Your task to perform on an android device: turn on location history Image 0: 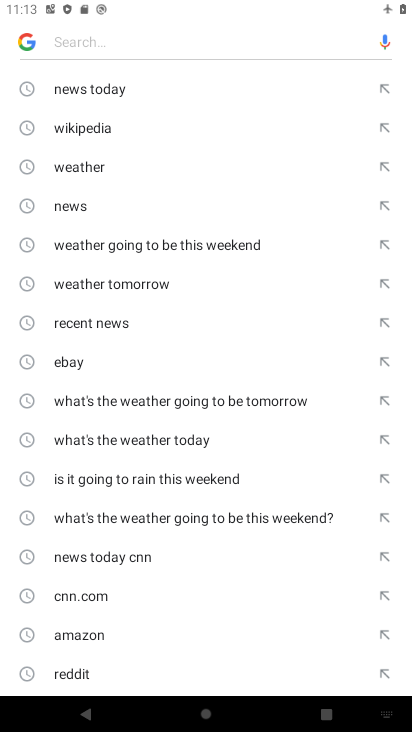
Step 0: press home button
Your task to perform on an android device: turn on location history Image 1: 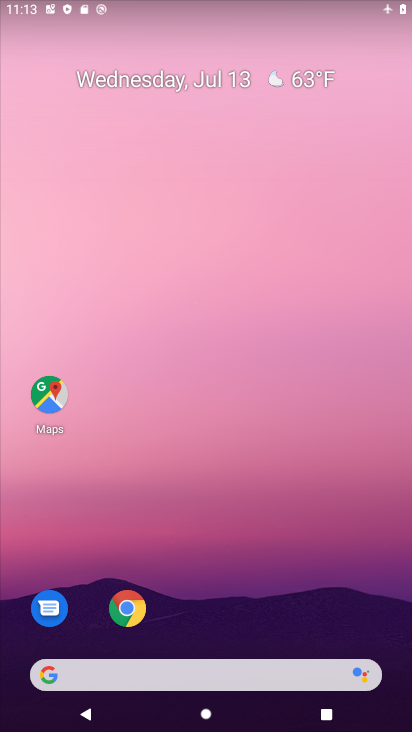
Step 1: drag from (309, 579) to (255, 58)
Your task to perform on an android device: turn on location history Image 2: 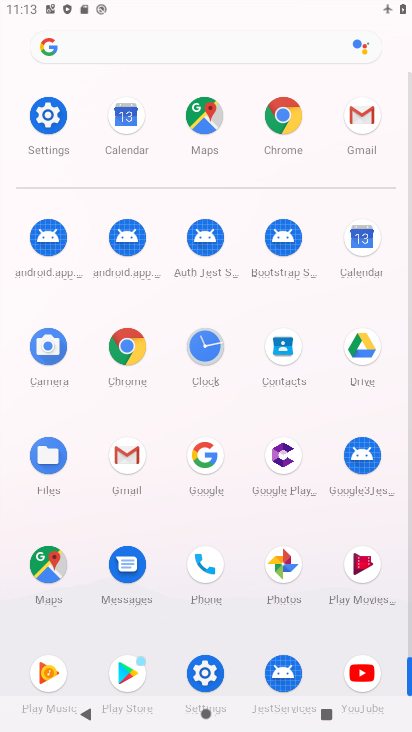
Step 2: click (48, 113)
Your task to perform on an android device: turn on location history Image 3: 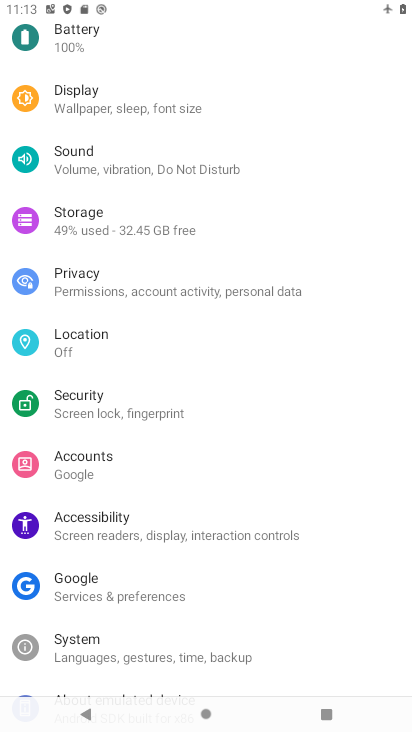
Step 3: click (94, 336)
Your task to perform on an android device: turn on location history Image 4: 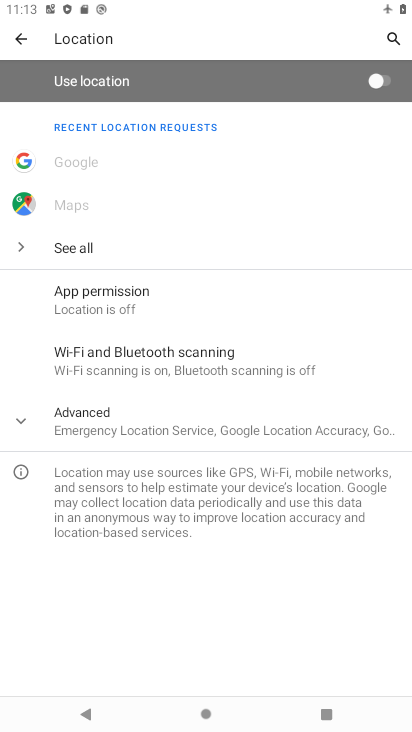
Step 4: click (378, 78)
Your task to perform on an android device: turn on location history Image 5: 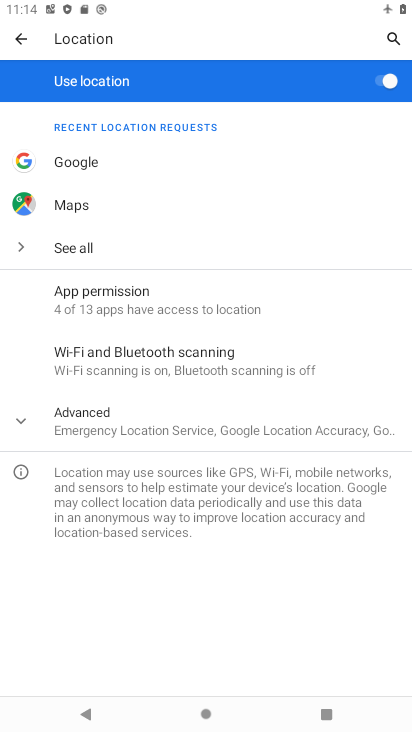
Step 5: task complete